Your task to perform on an android device: check battery use Image 0: 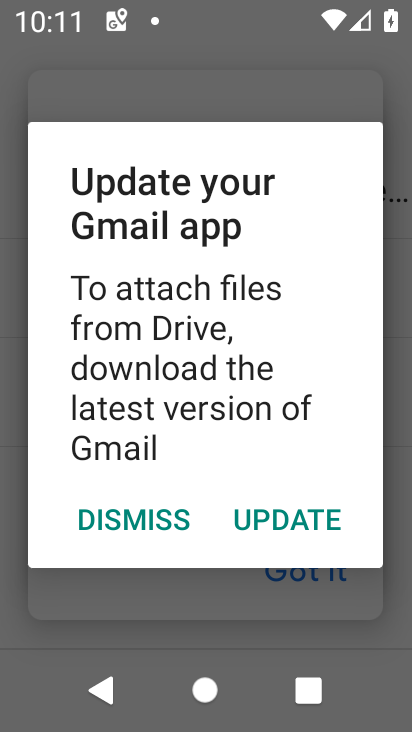
Step 0: press home button
Your task to perform on an android device: check battery use Image 1: 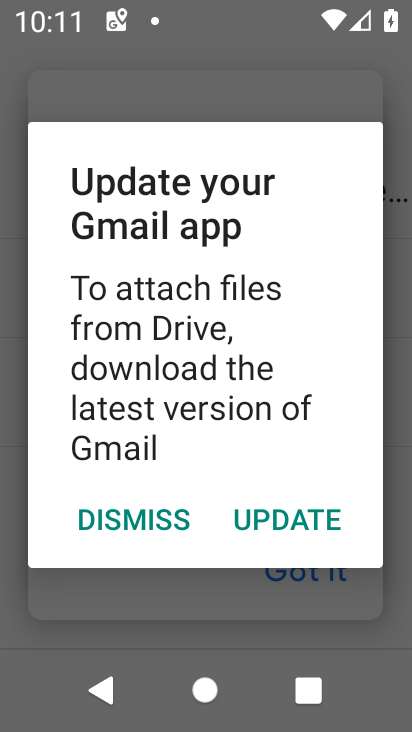
Step 1: press home button
Your task to perform on an android device: check battery use Image 2: 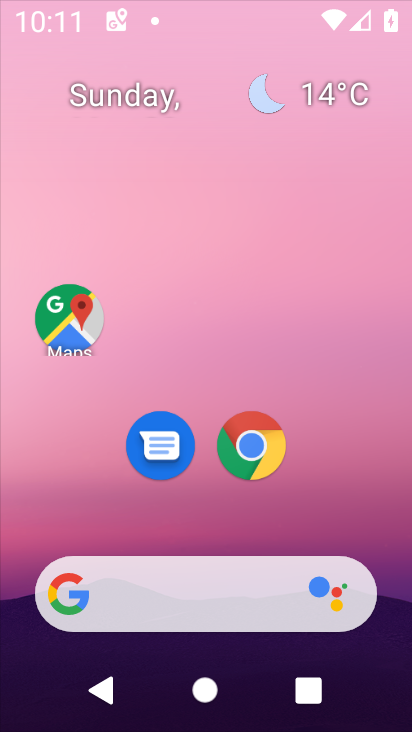
Step 2: drag from (220, 570) to (275, 107)
Your task to perform on an android device: check battery use Image 3: 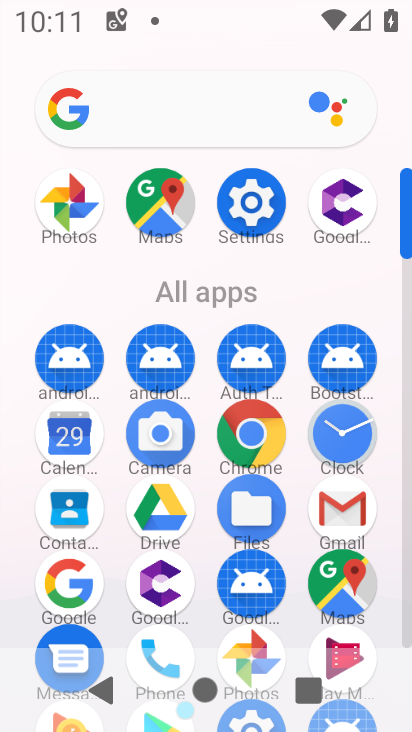
Step 3: click (230, 215)
Your task to perform on an android device: check battery use Image 4: 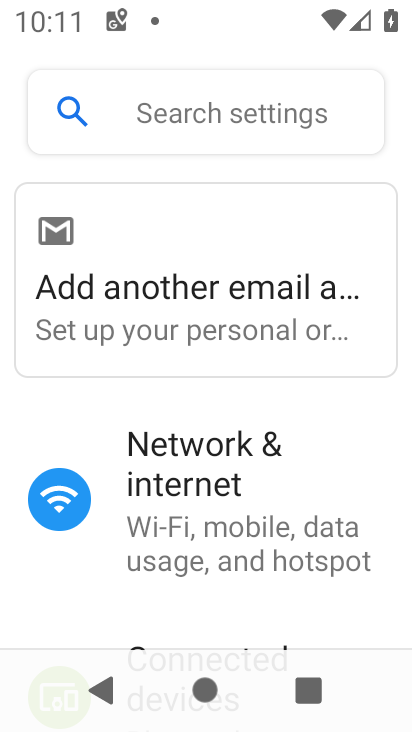
Step 4: drag from (222, 579) to (343, 78)
Your task to perform on an android device: check battery use Image 5: 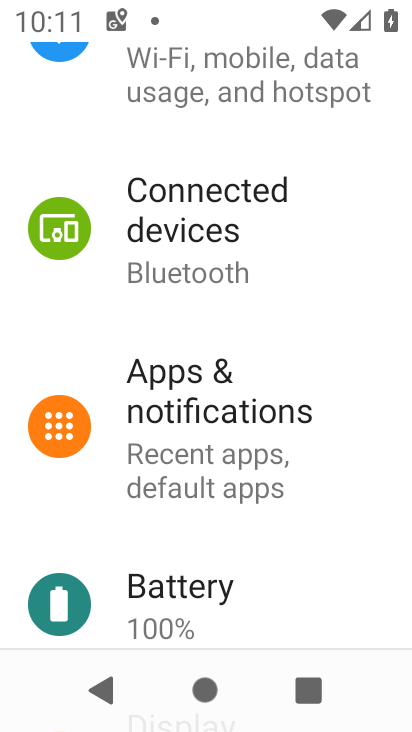
Step 5: click (186, 607)
Your task to perform on an android device: check battery use Image 6: 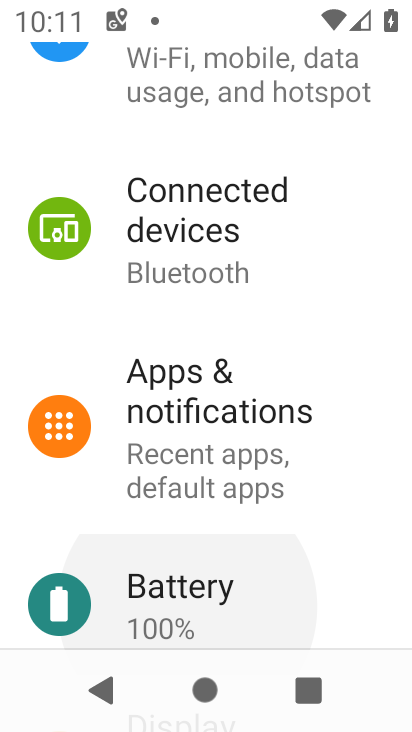
Step 6: click (187, 607)
Your task to perform on an android device: check battery use Image 7: 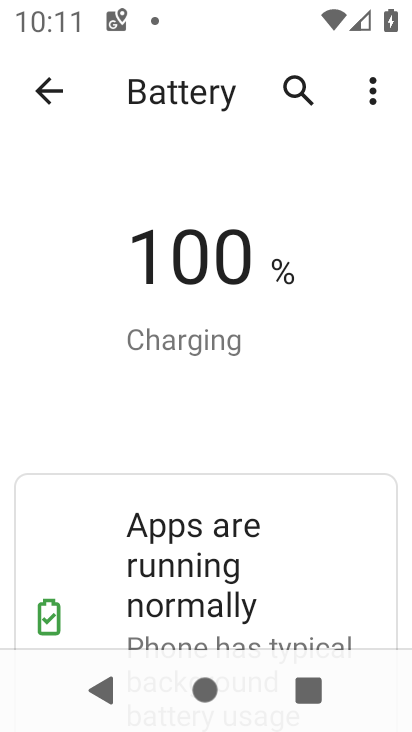
Step 7: click (371, 82)
Your task to perform on an android device: check battery use Image 8: 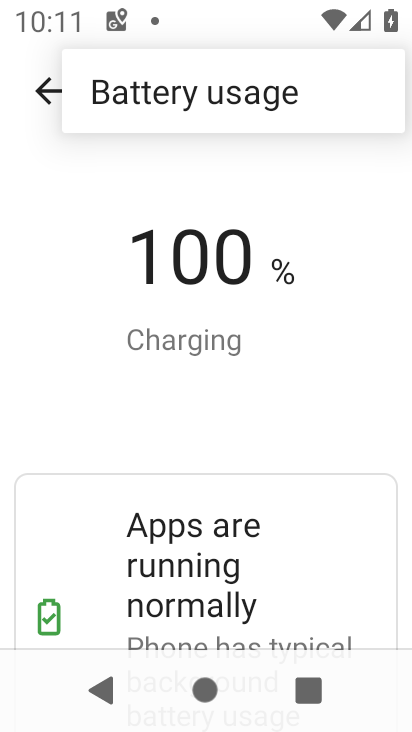
Step 8: click (306, 97)
Your task to perform on an android device: check battery use Image 9: 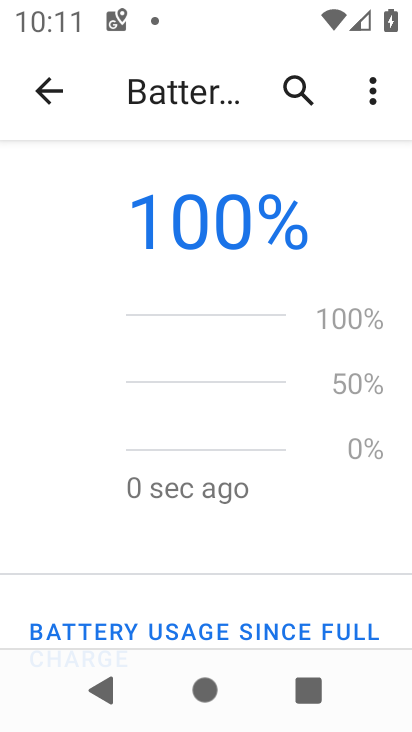
Step 9: task complete